Your task to perform on an android device: turn off data saver in the chrome app Image 0: 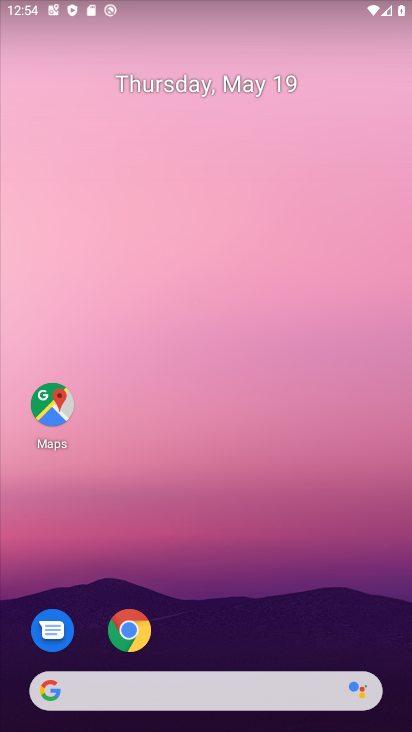
Step 0: click (133, 621)
Your task to perform on an android device: turn off data saver in the chrome app Image 1: 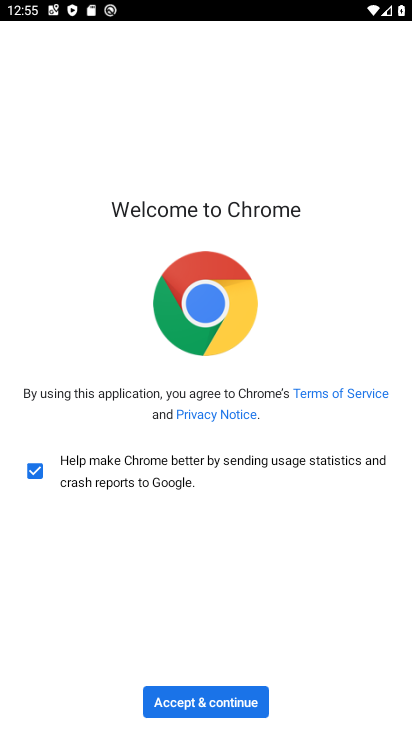
Step 1: click (210, 700)
Your task to perform on an android device: turn off data saver in the chrome app Image 2: 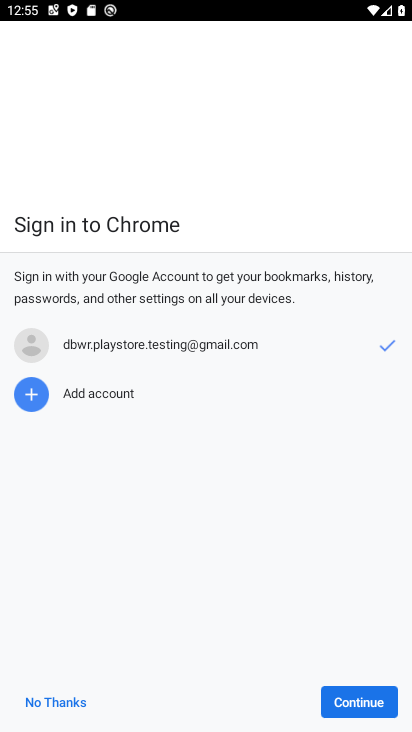
Step 2: click (368, 695)
Your task to perform on an android device: turn off data saver in the chrome app Image 3: 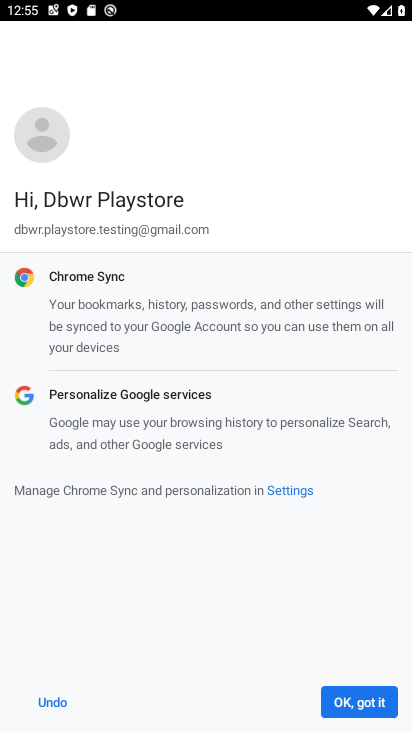
Step 3: click (377, 691)
Your task to perform on an android device: turn off data saver in the chrome app Image 4: 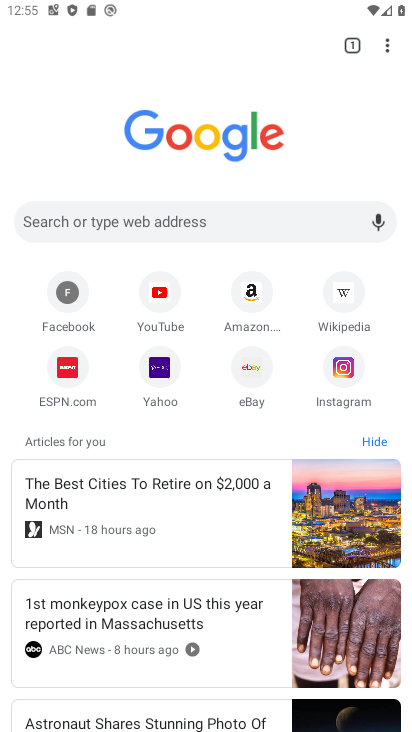
Step 4: click (386, 44)
Your task to perform on an android device: turn off data saver in the chrome app Image 5: 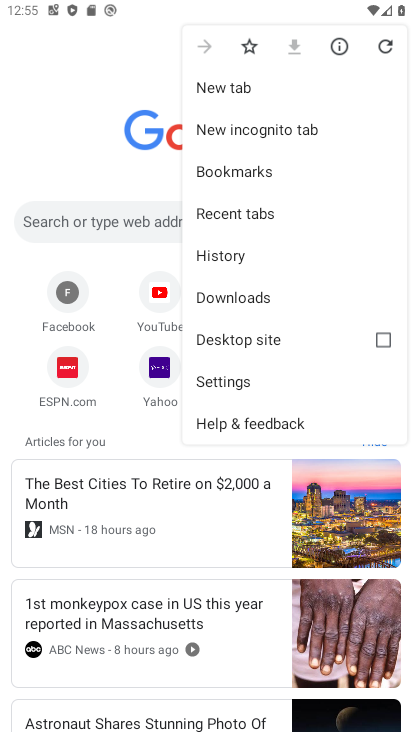
Step 5: click (238, 371)
Your task to perform on an android device: turn off data saver in the chrome app Image 6: 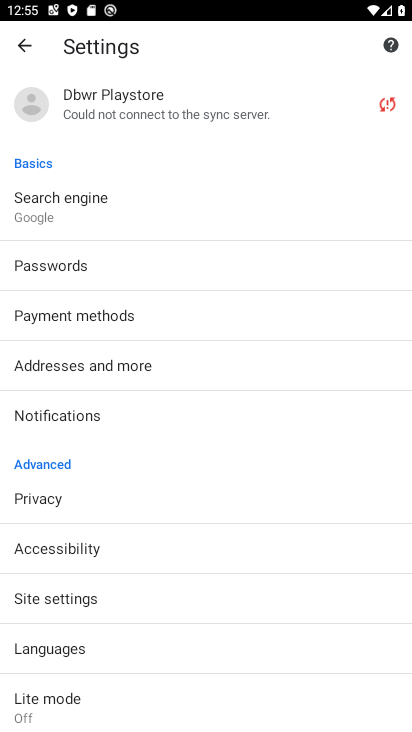
Step 6: click (76, 687)
Your task to perform on an android device: turn off data saver in the chrome app Image 7: 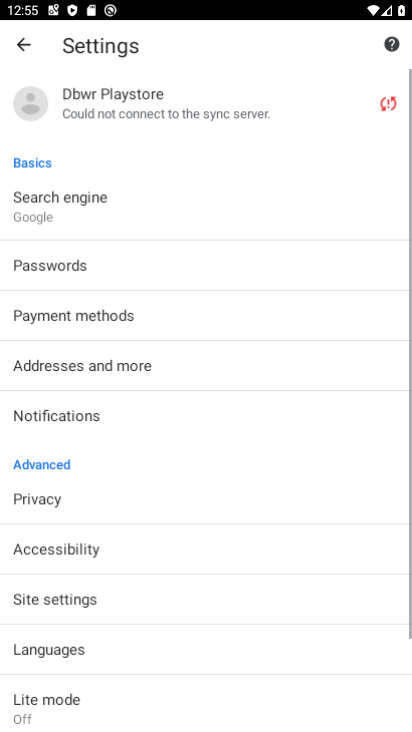
Step 7: task complete